Your task to perform on an android device: see sites visited before in the chrome app Image 0: 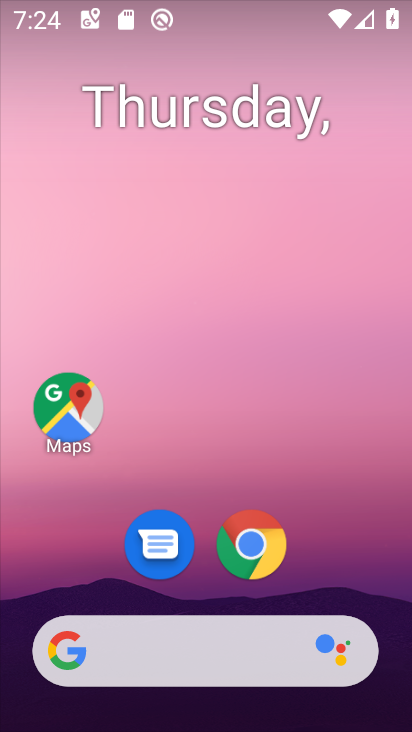
Step 0: drag from (253, 688) to (245, 359)
Your task to perform on an android device: see sites visited before in the chrome app Image 1: 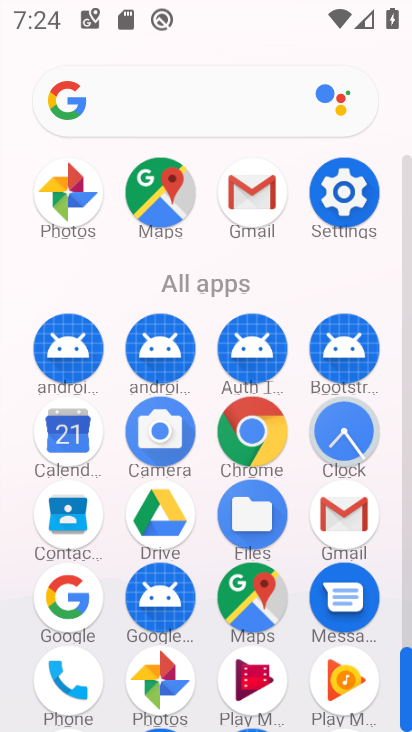
Step 1: click (253, 423)
Your task to perform on an android device: see sites visited before in the chrome app Image 2: 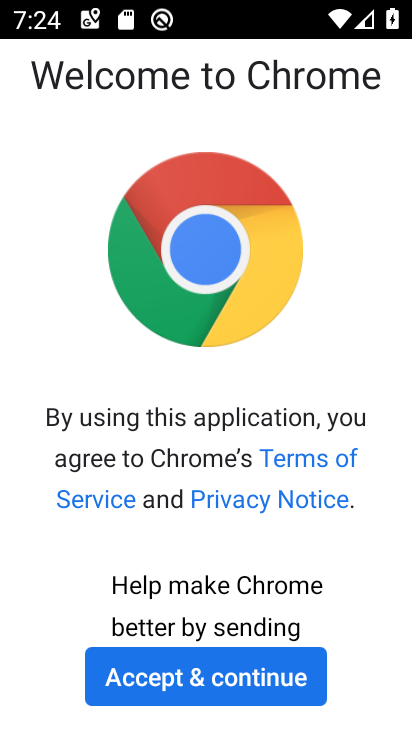
Step 2: click (185, 673)
Your task to perform on an android device: see sites visited before in the chrome app Image 3: 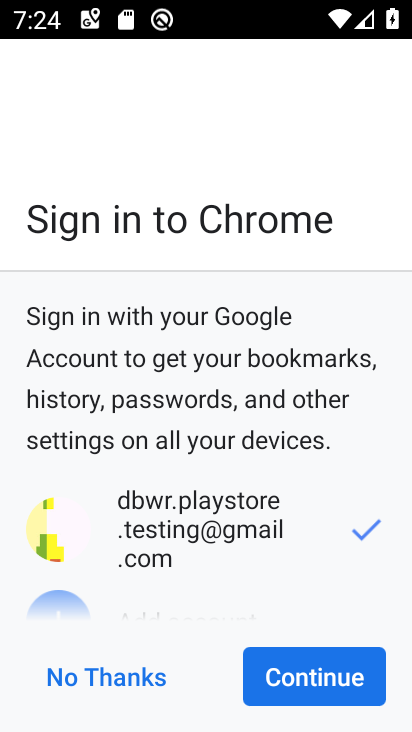
Step 3: click (333, 671)
Your task to perform on an android device: see sites visited before in the chrome app Image 4: 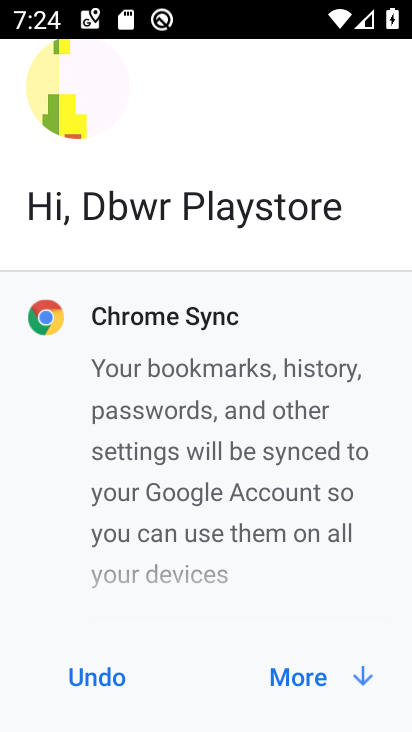
Step 4: click (368, 664)
Your task to perform on an android device: see sites visited before in the chrome app Image 5: 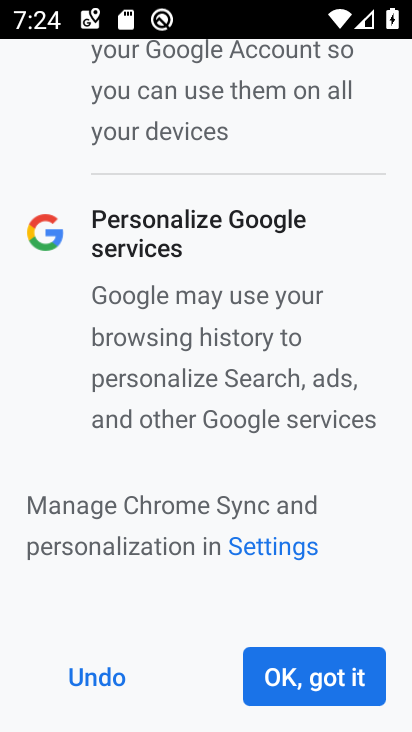
Step 5: click (333, 696)
Your task to perform on an android device: see sites visited before in the chrome app Image 6: 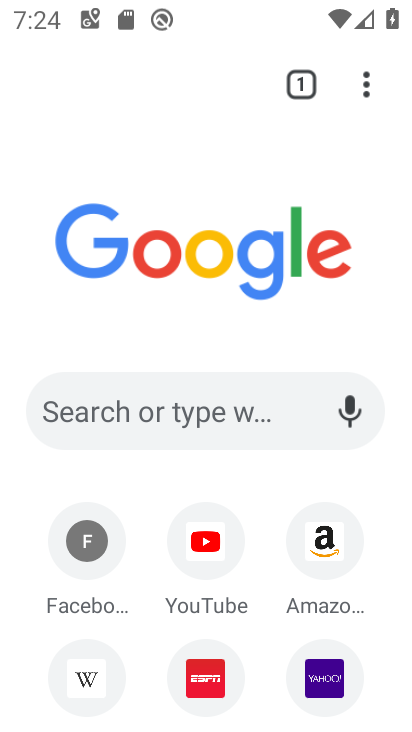
Step 6: click (368, 88)
Your task to perform on an android device: see sites visited before in the chrome app Image 7: 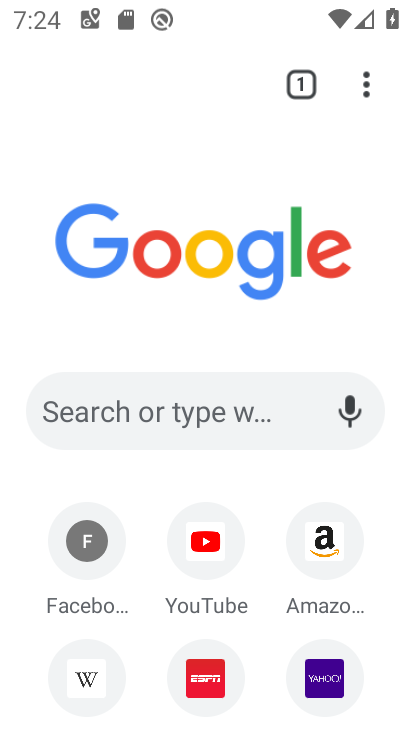
Step 7: click (364, 77)
Your task to perform on an android device: see sites visited before in the chrome app Image 8: 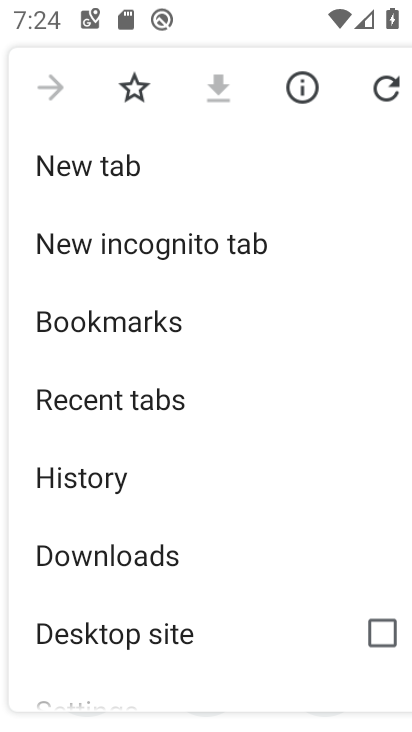
Step 8: click (88, 700)
Your task to perform on an android device: see sites visited before in the chrome app Image 9: 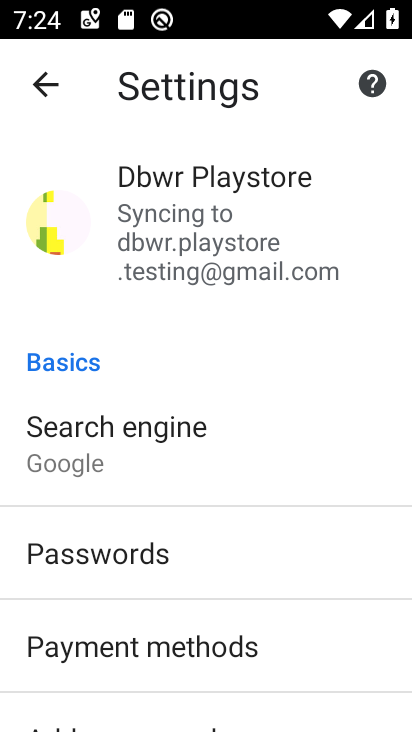
Step 9: drag from (287, 663) to (314, 406)
Your task to perform on an android device: see sites visited before in the chrome app Image 10: 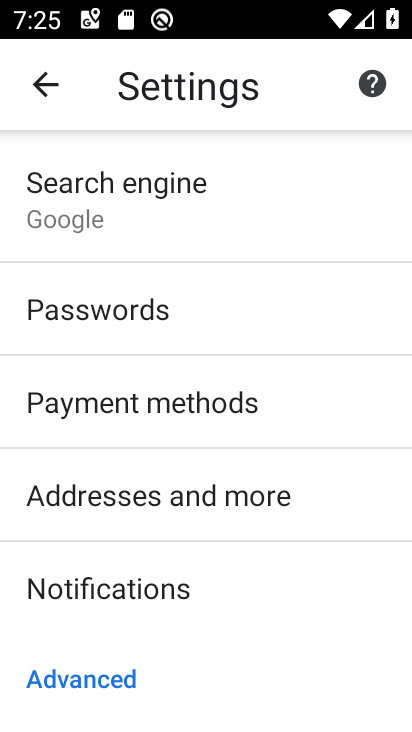
Step 10: drag from (155, 580) to (180, 450)
Your task to perform on an android device: see sites visited before in the chrome app Image 11: 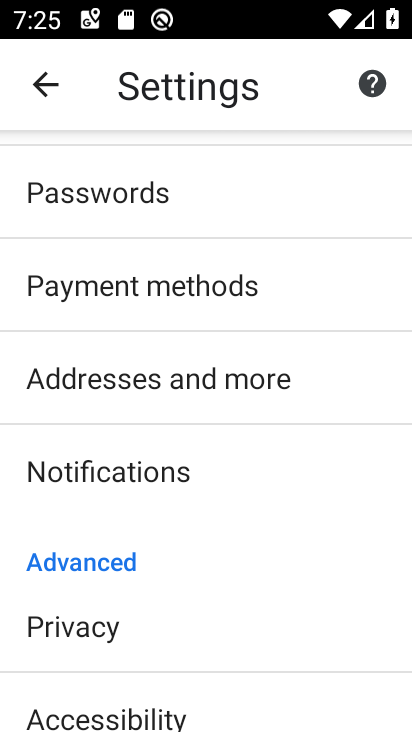
Step 11: drag from (164, 518) to (188, 349)
Your task to perform on an android device: see sites visited before in the chrome app Image 12: 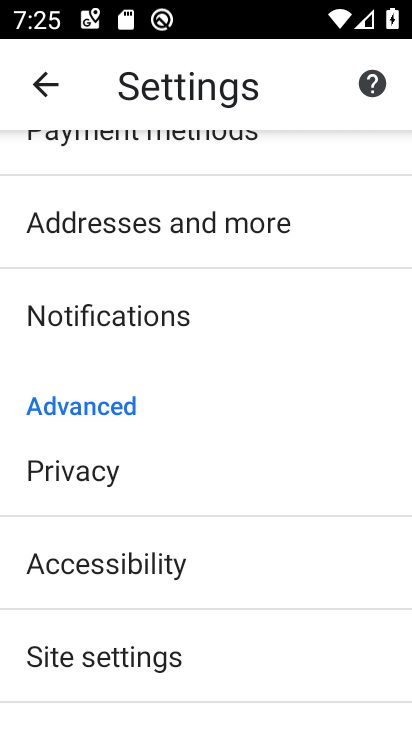
Step 12: click (97, 645)
Your task to perform on an android device: see sites visited before in the chrome app Image 13: 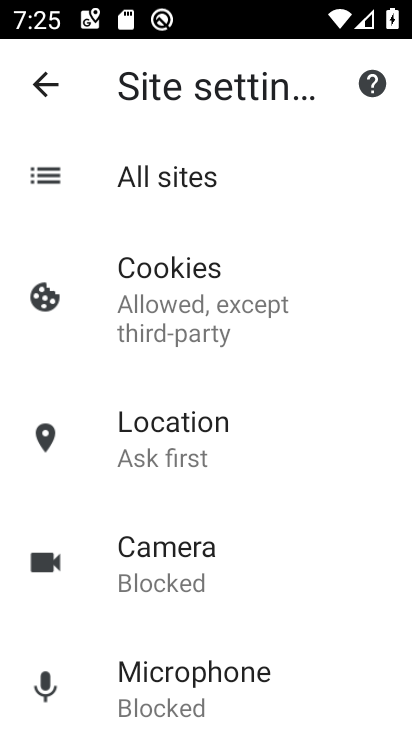
Step 13: click (181, 184)
Your task to perform on an android device: see sites visited before in the chrome app Image 14: 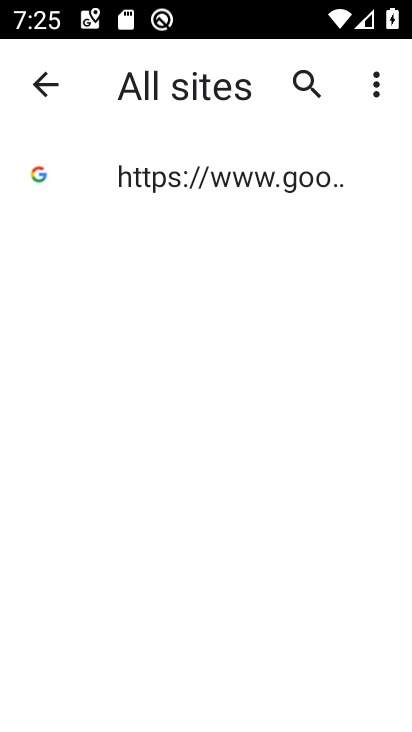
Step 14: task complete